Your task to perform on an android device: Search for "beats solo 3" on target.com, select the first entry, add it to the cart, then select checkout. Image 0: 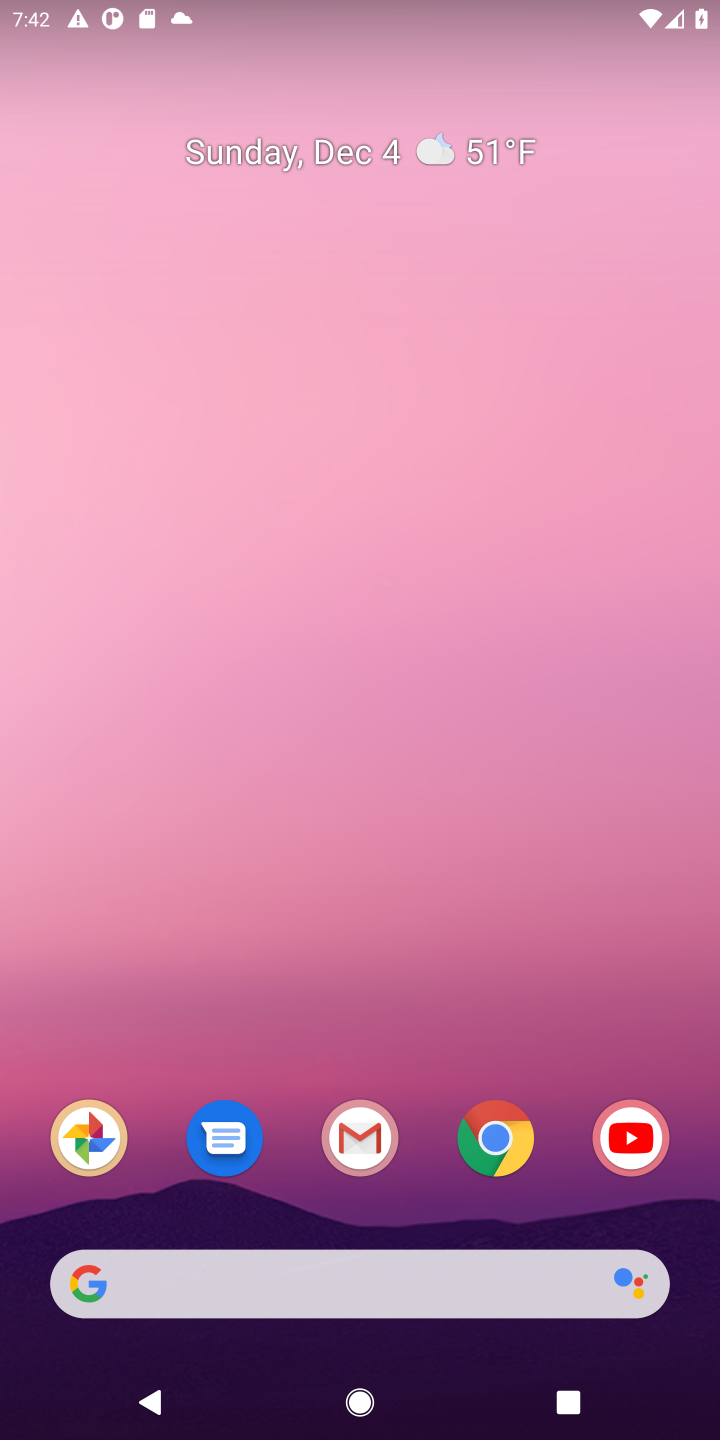
Step 0: click (515, 1147)
Your task to perform on an android device: Search for "beats solo 3" on target.com, select the first entry, add it to the cart, then select checkout. Image 1: 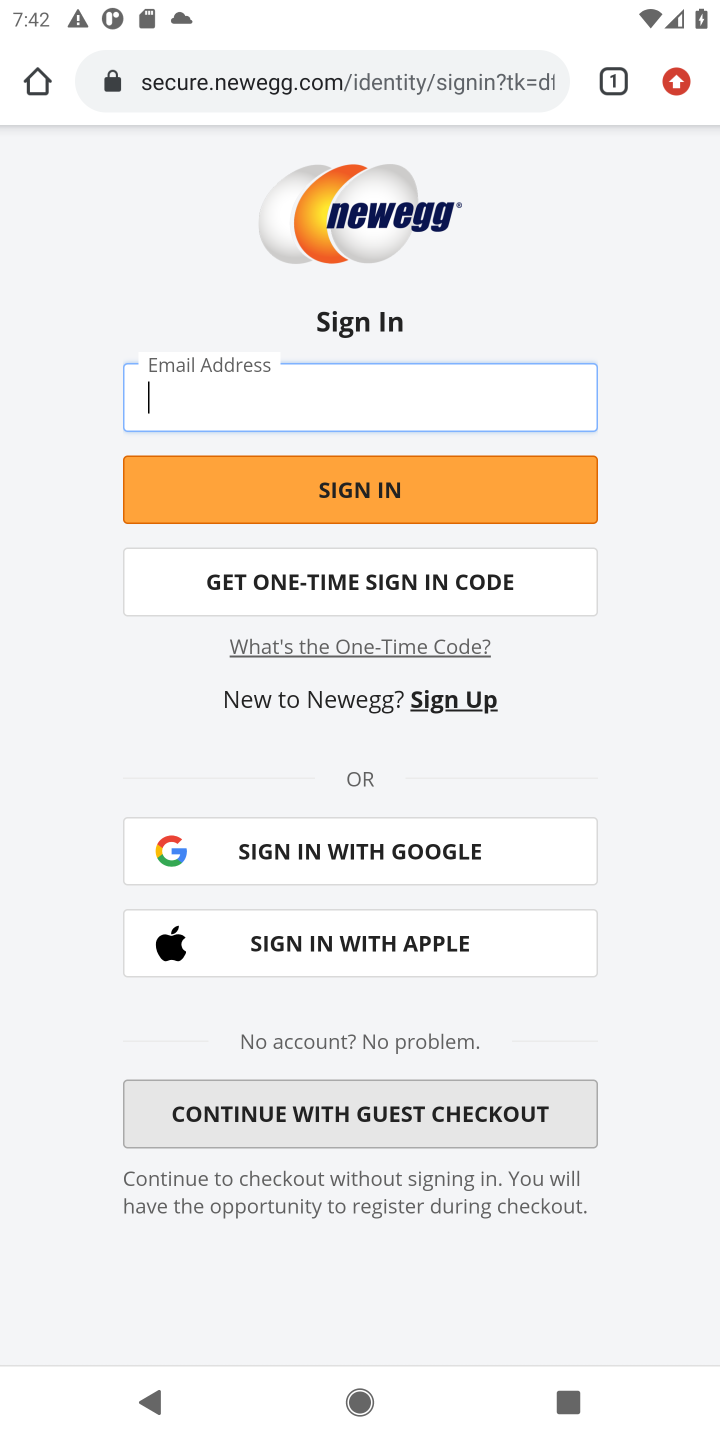
Step 1: click (474, 82)
Your task to perform on an android device: Search for "beats solo 3" on target.com, select the first entry, add it to the cart, then select checkout. Image 2: 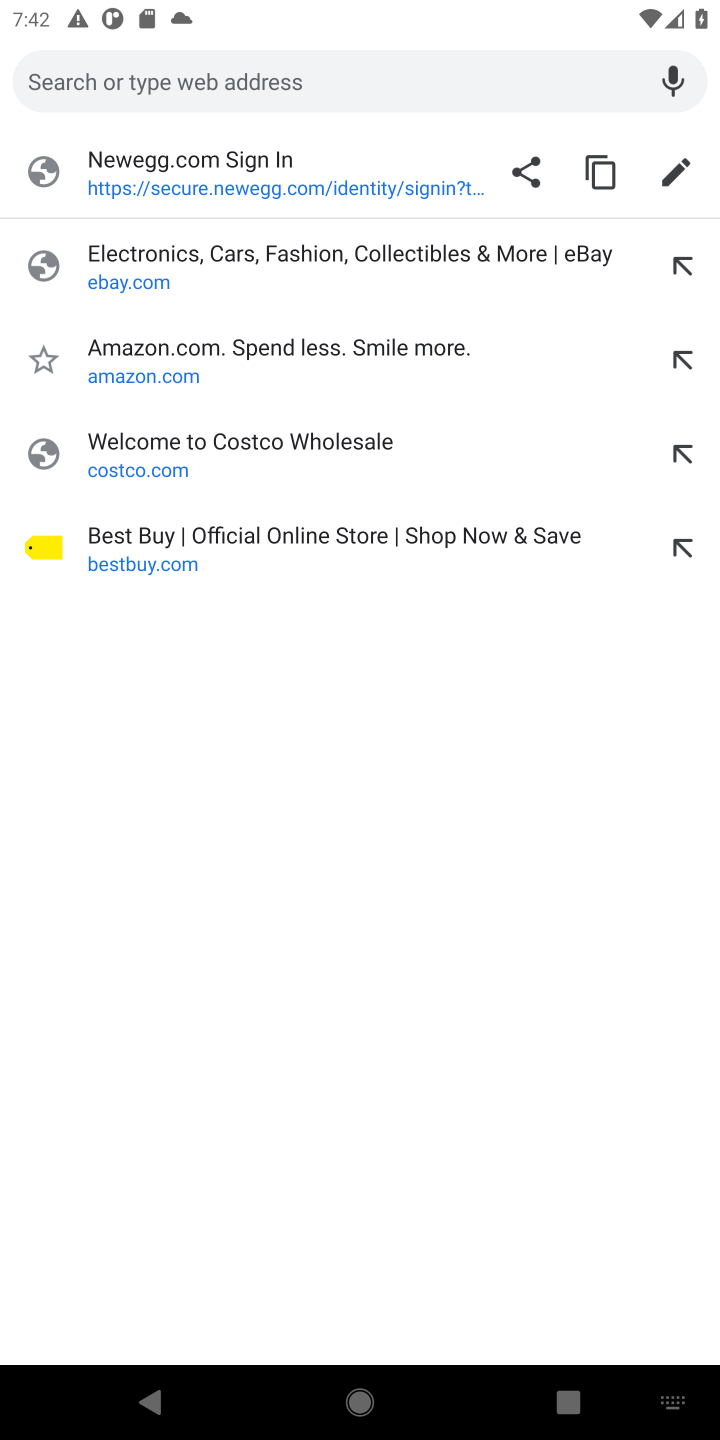
Step 2: type "target.com"
Your task to perform on an android device: Search for "beats solo 3" on target.com, select the first entry, add it to the cart, then select checkout. Image 3: 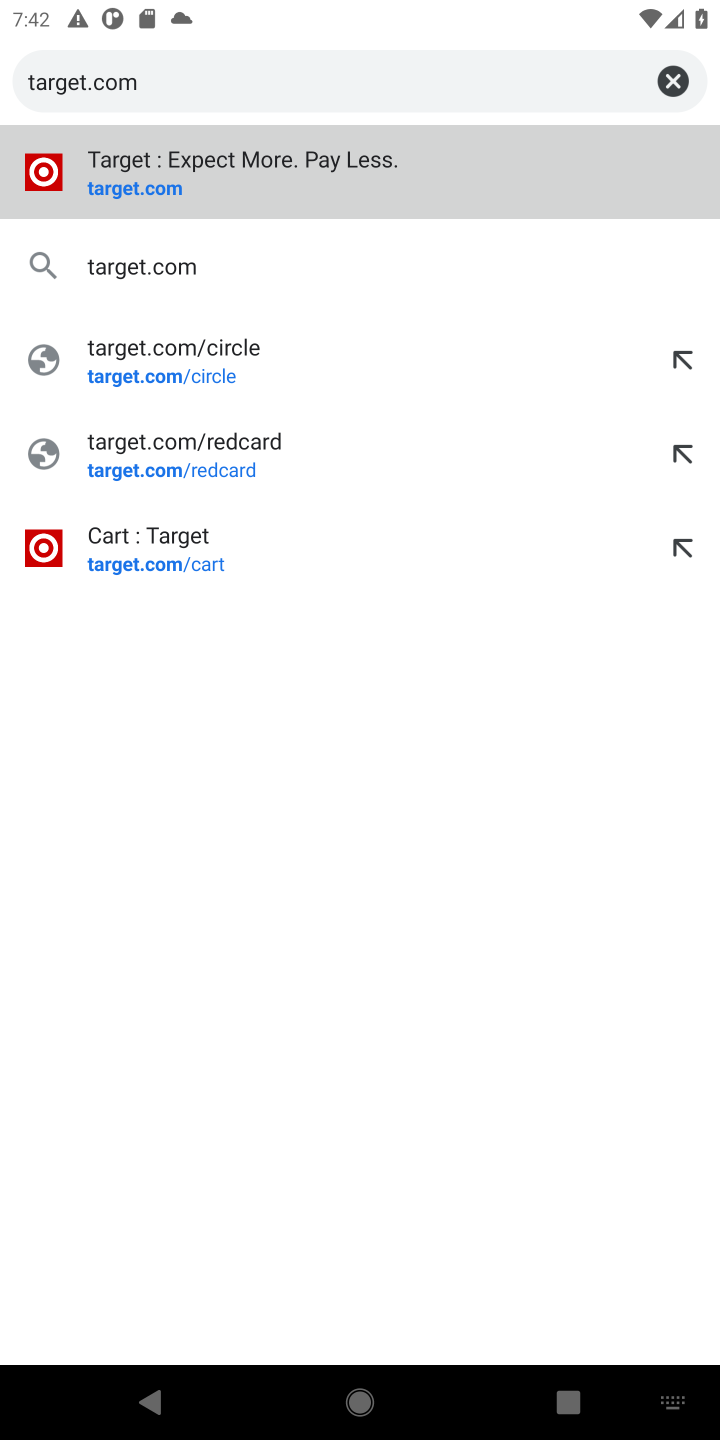
Step 3: press enter
Your task to perform on an android device: Search for "beats solo 3" on target.com, select the first entry, add it to the cart, then select checkout. Image 4: 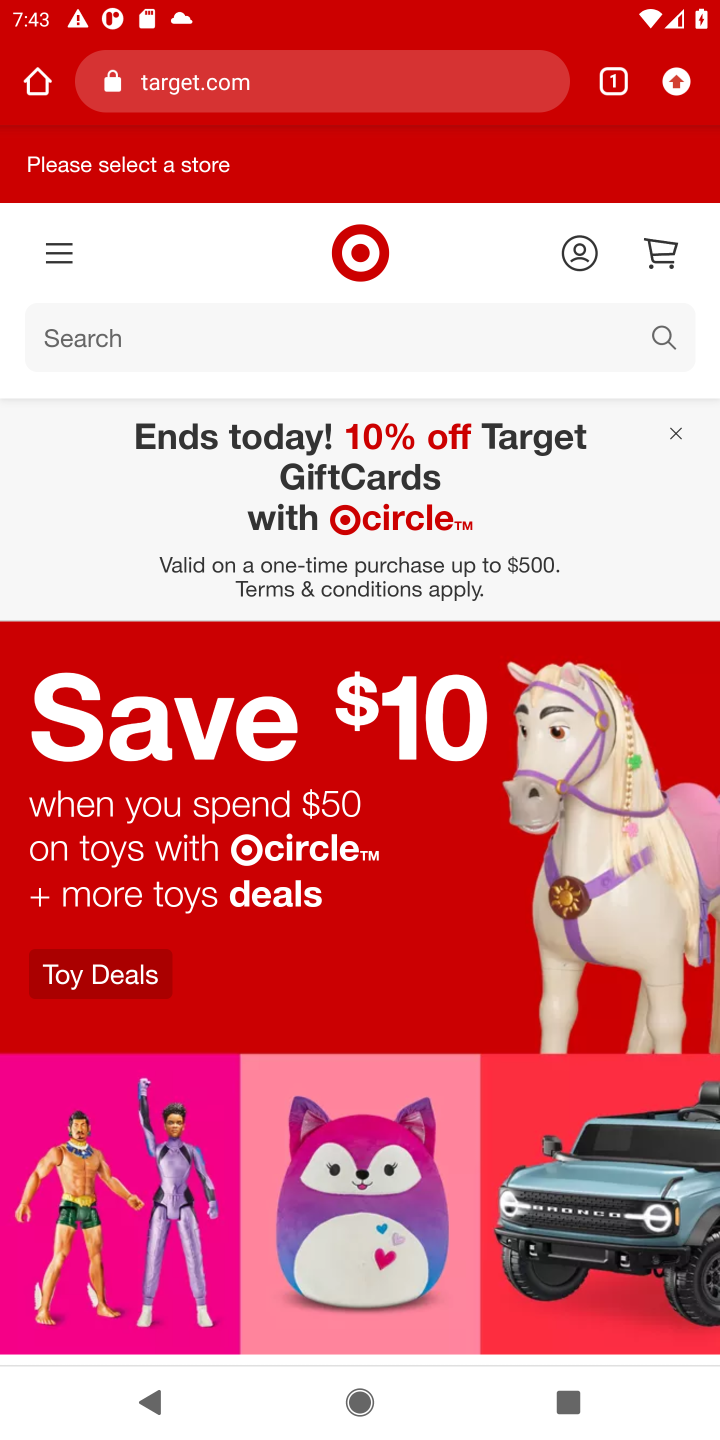
Step 4: click (664, 330)
Your task to perform on an android device: Search for "beats solo 3" on target.com, select the first entry, add it to the cart, then select checkout. Image 5: 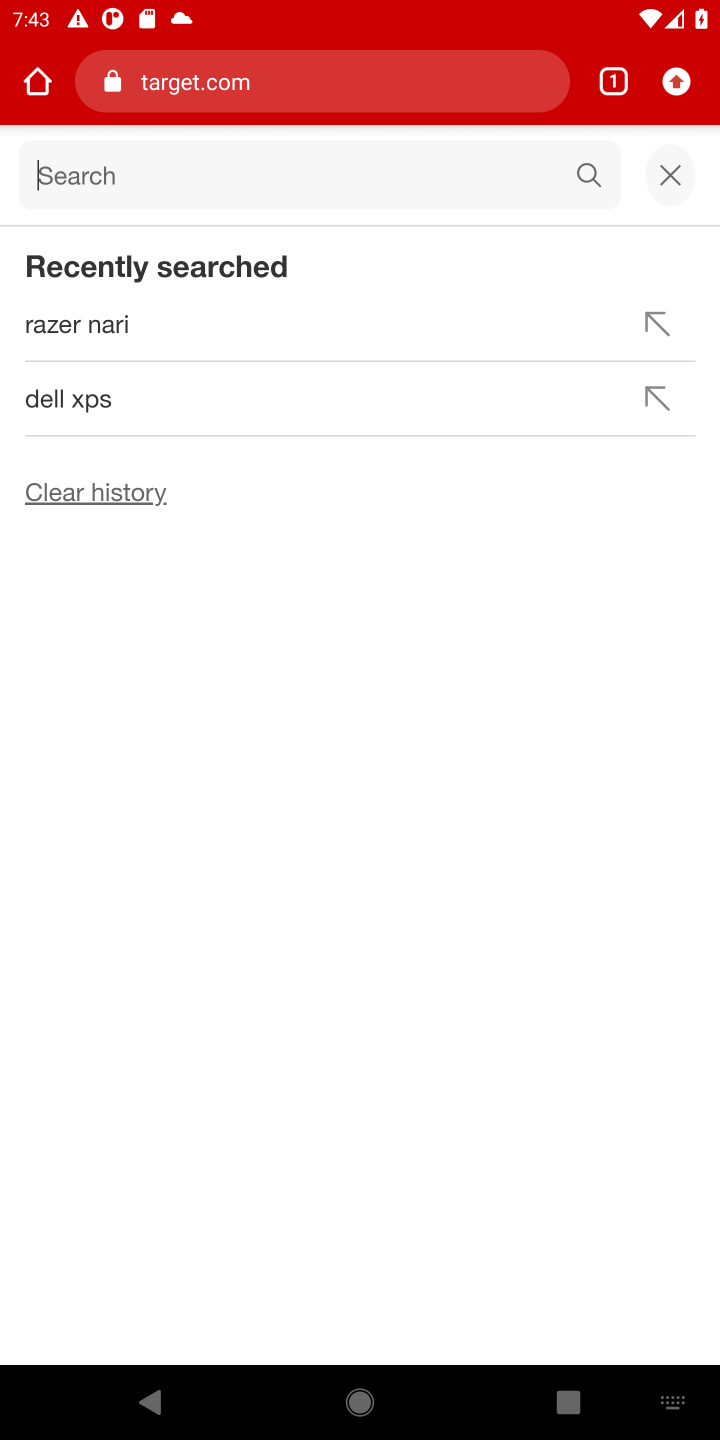
Step 5: type "beats solo 3"
Your task to perform on an android device: Search for "beats solo 3" on target.com, select the first entry, add it to the cart, then select checkout. Image 6: 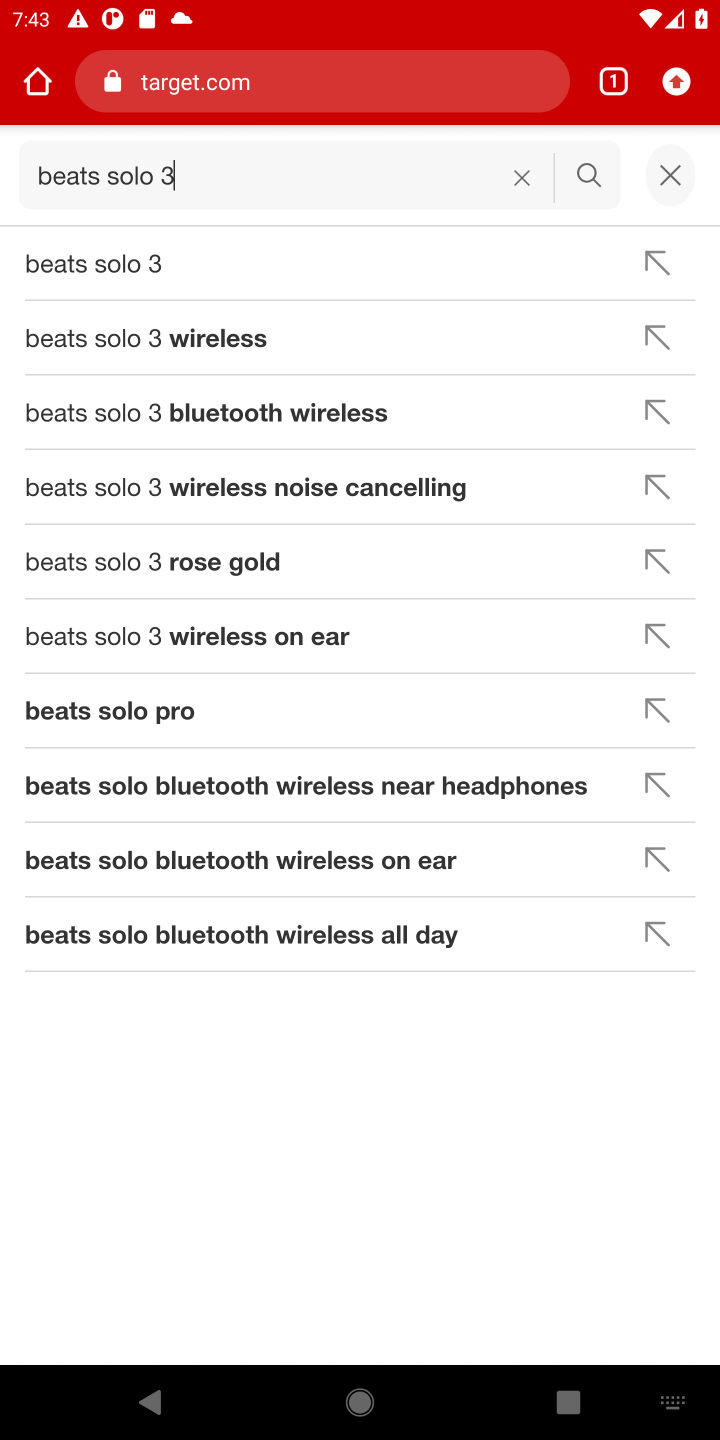
Step 6: press enter
Your task to perform on an android device: Search for "beats solo 3" on target.com, select the first entry, add it to the cart, then select checkout. Image 7: 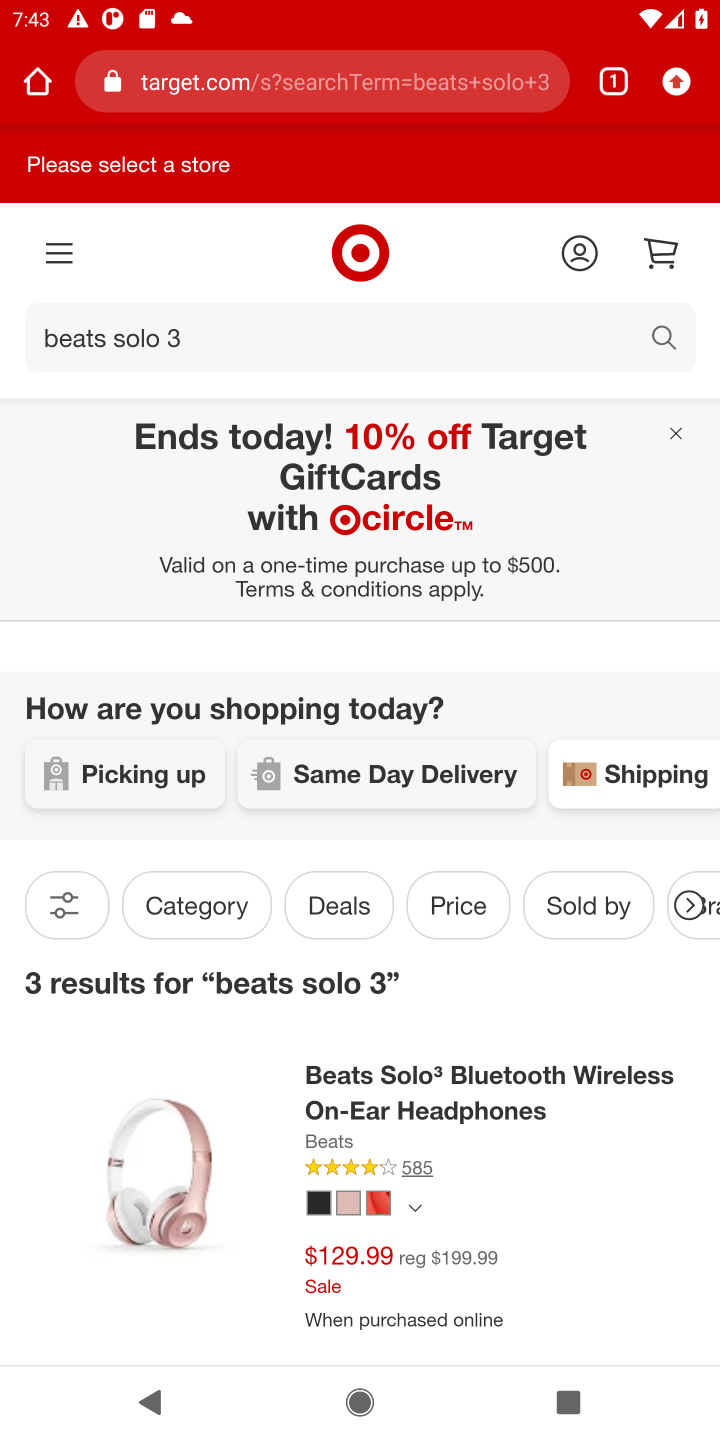
Step 7: task complete